Your task to perform on an android device: Search for seafood restaurants on Google Maps Image 0: 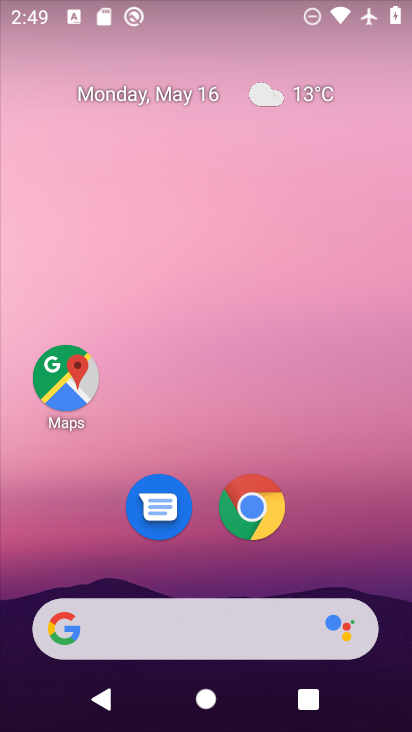
Step 0: drag from (276, 572) to (157, 261)
Your task to perform on an android device: Search for seafood restaurants on Google Maps Image 1: 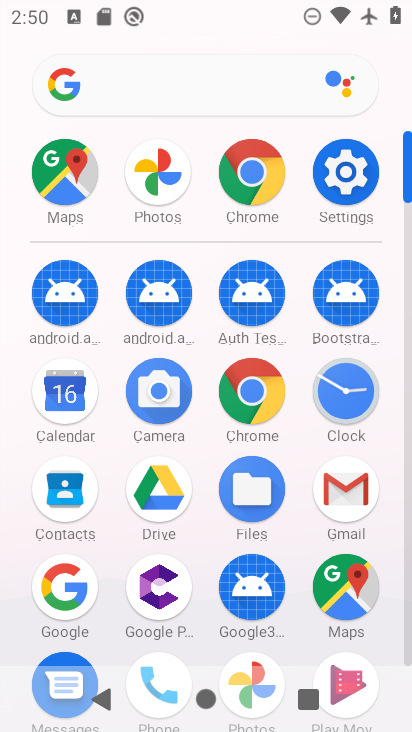
Step 1: click (328, 580)
Your task to perform on an android device: Search for seafood restaurants on Google Maps Image 2: 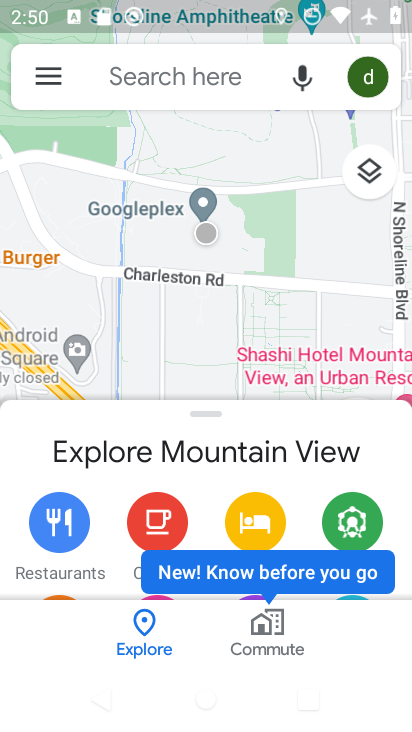
Step 2: click (194, 84)
Your task to perform on an android device: Search for seafood restaurants on Google Maps Image 3: 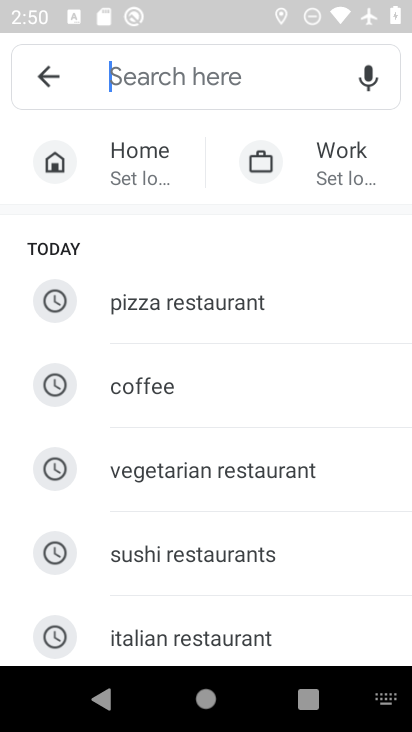
Step 3: drag from (232, 548) to (148, 289)
Your task to perform on an android device: Search for seafood restaurants on Google Maps Image 4: 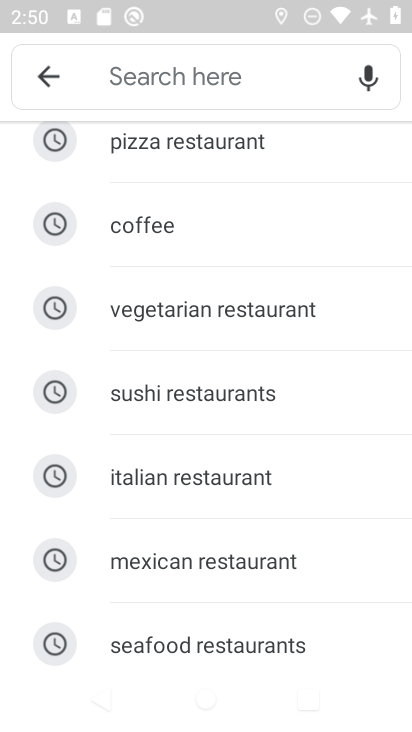
Step 4: click (206, 637)
Your task to perform on an android device: Search for seafood restaurants on Google Maps Image 5: 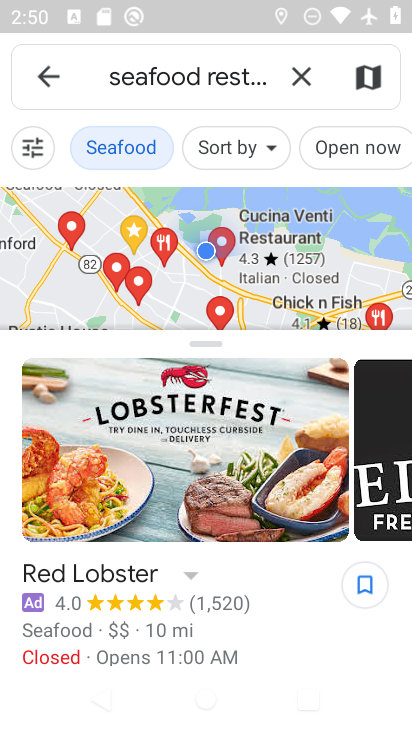
Step 5: task complete